Your task to perform on an android device: Open eBay Image 0: 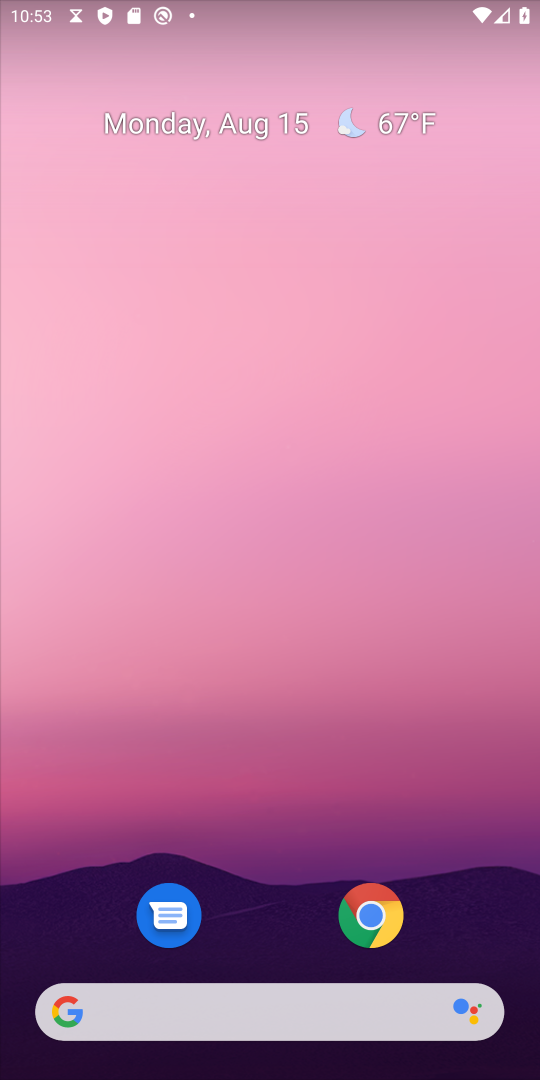
Step 0: click (377, 902)
Your task to perform on an android device: Open eBay Image 1: 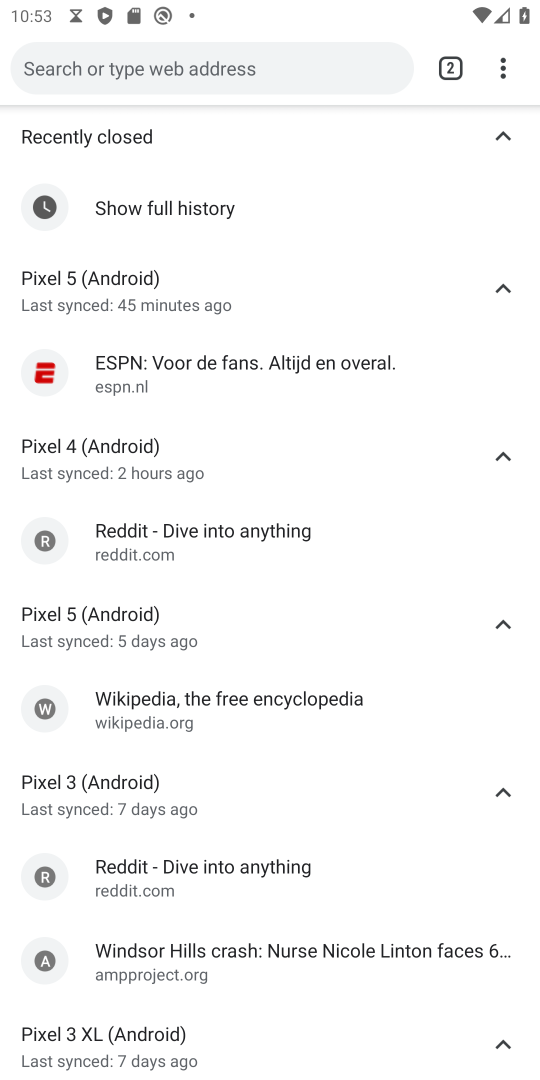
Step 1: click (464, 72)
Your task to perform on an android device: Open eBay Image 2: 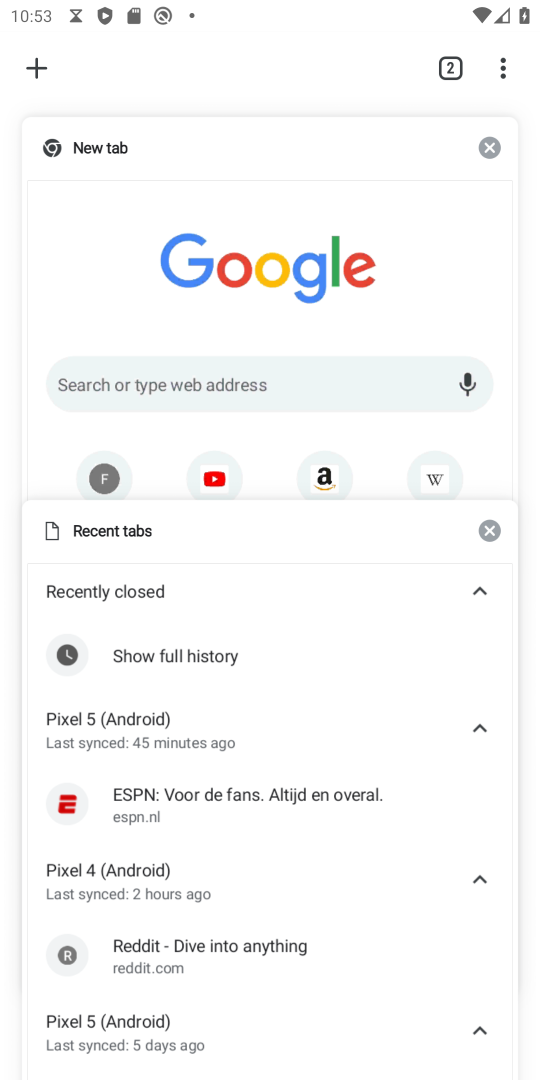
Step 2: click (493, 148)
Your task to perform on an android device: Open eBay Image 3: 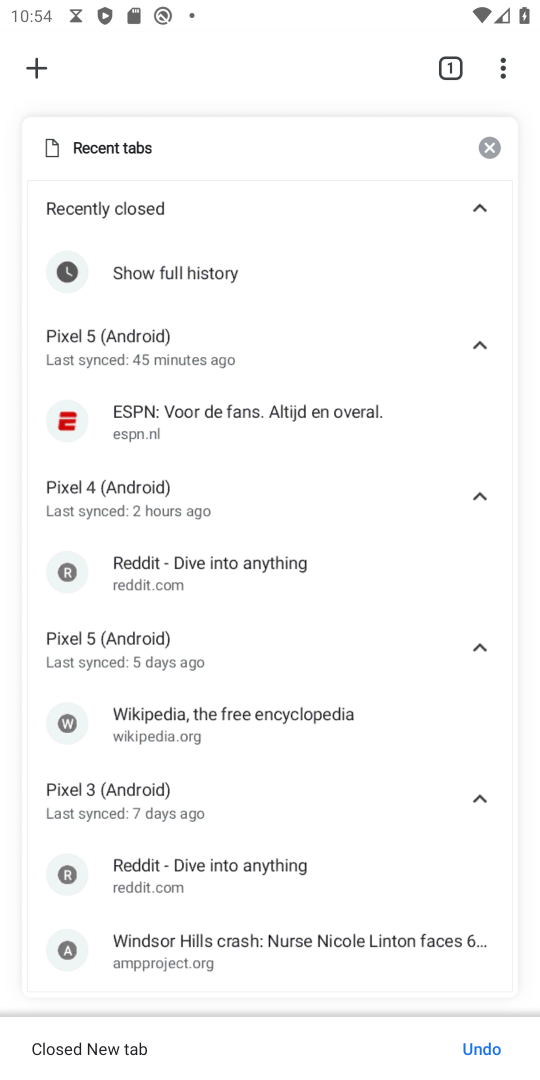
Step 3: click (493, 148)
Your task to perform on an android device: Open eBay Image 4: 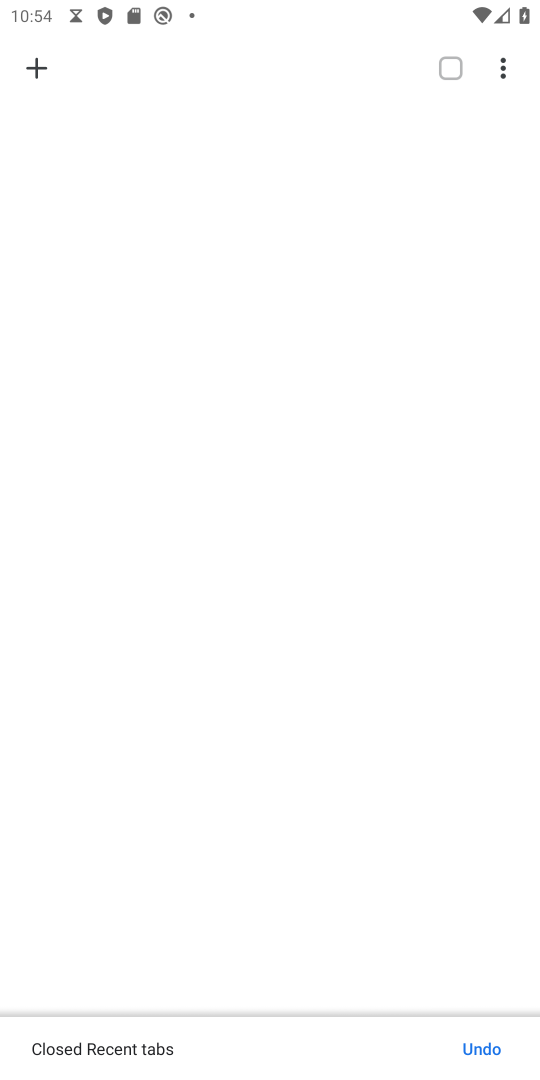
Step 4: click (52, 73)
Your task to perform on an android device: Open eBay Image 5: 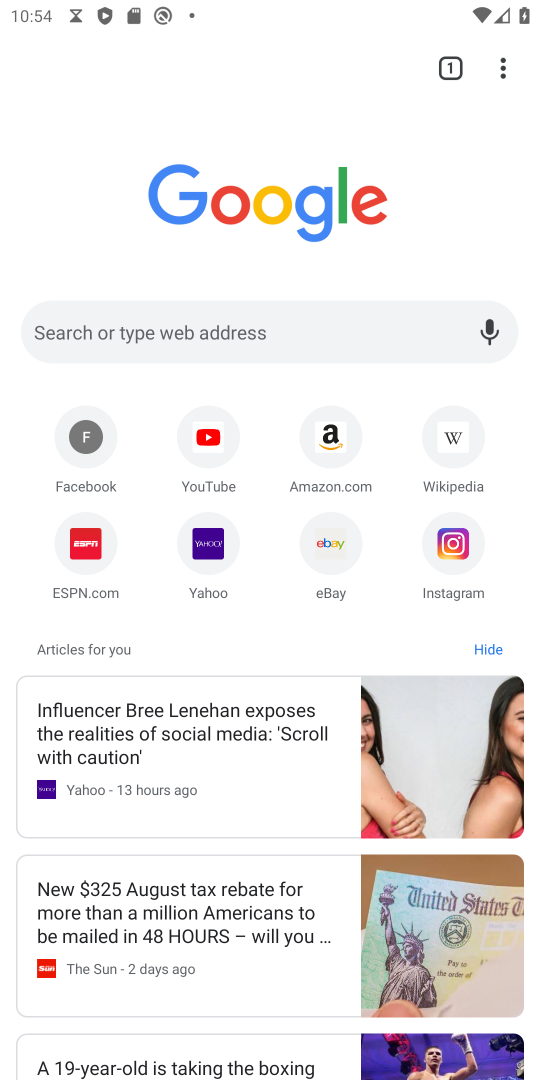
Step 5: click (335, 552)
Your task to perform on an android device: Open eBay Image 6: 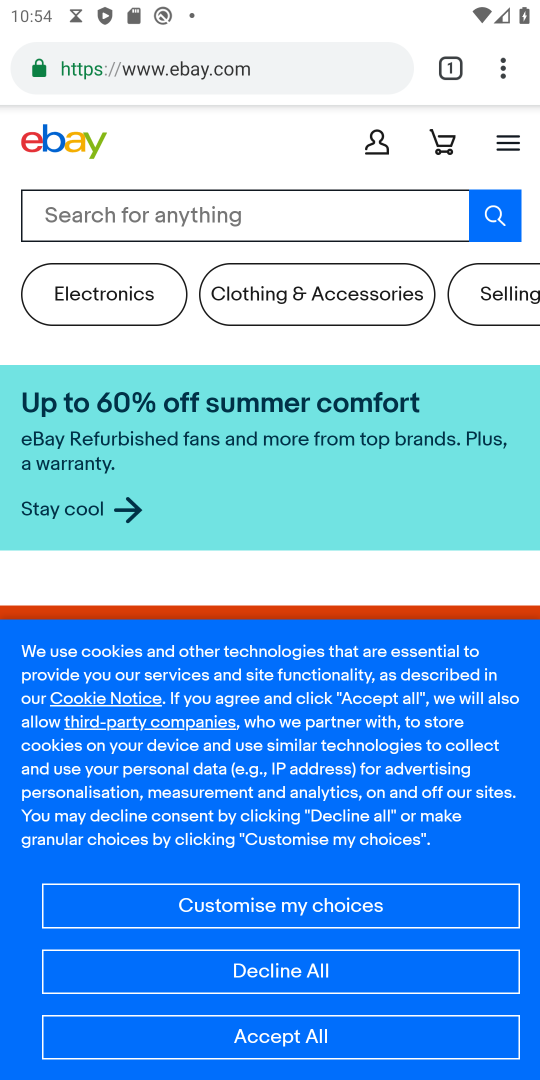
Step 6: task complete